Your task to perform on an android device: Empty the shopping cart on walmart.com. Search for "rayovac triple a" on walmart.com, select the first entry, add it to the cart, then select checkout. Image 0: 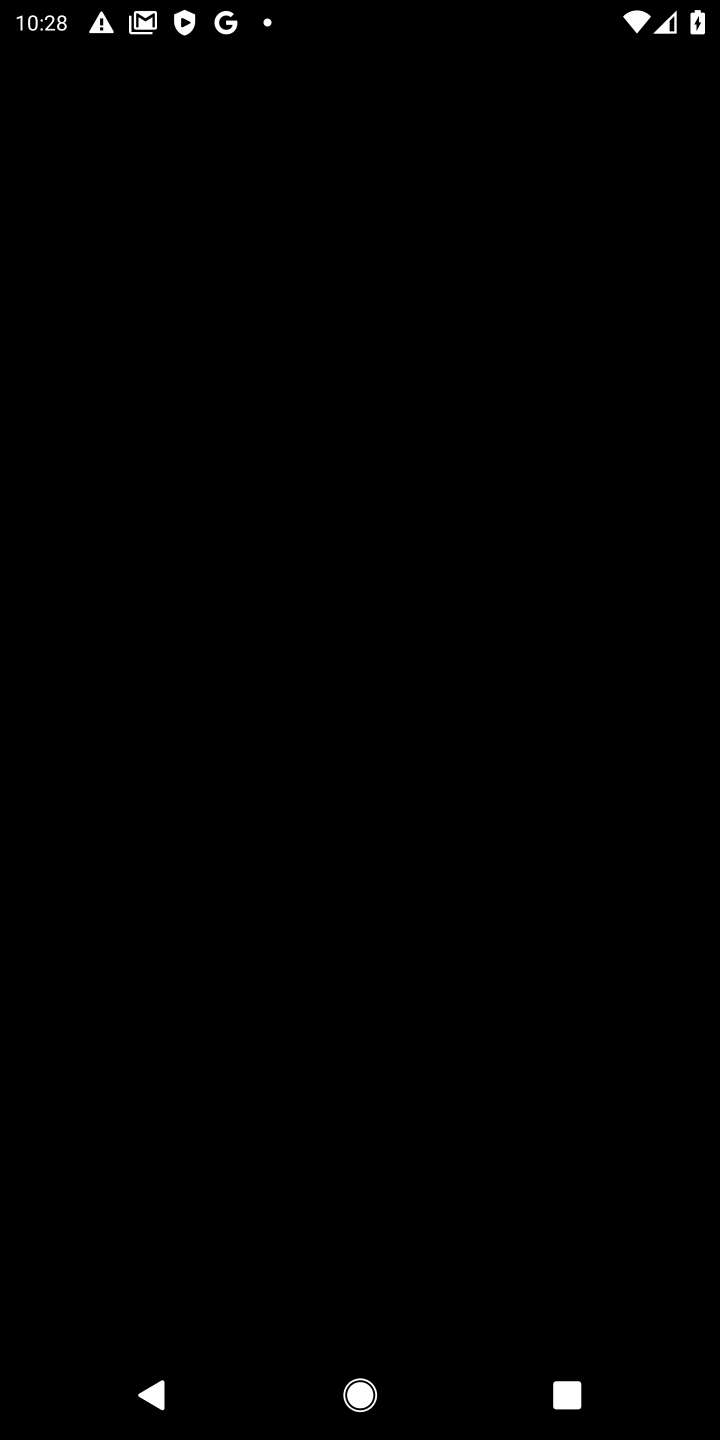
Step 0: press home button
Your task to perform on an android device: Empty the shopping cart on walmart.com. Search for "rayovac triple a" on walmart.com, select the first entry, add it to the cart, then select checkout. Image 1: 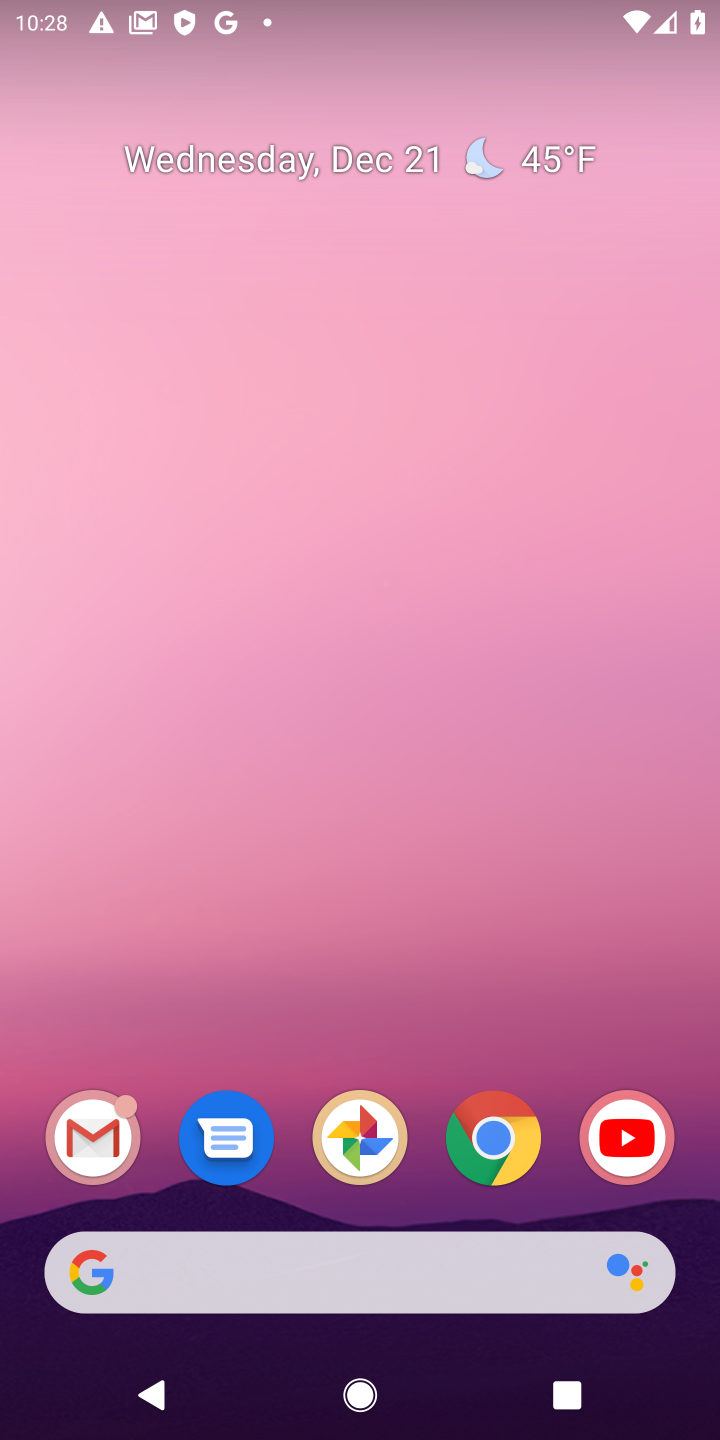
Step 1: click (484, 1153)
Your task to perform on an android device: Empty the shopping cart on walmart.com. Search for "rayovac triple a" on walmart.com, select the first entry, add it to the cart, then select checkout. Image 2: 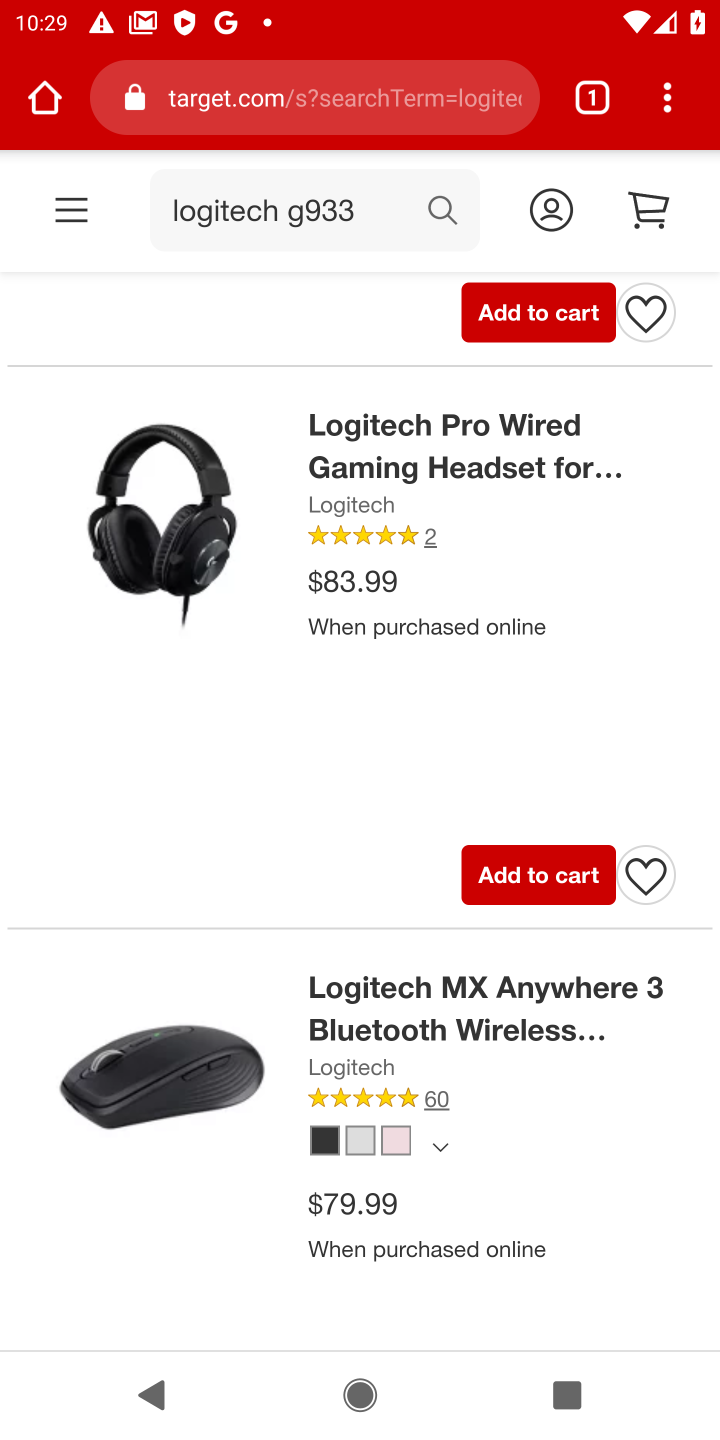
Step 2: click (261, 104)
Your task to perform on an android device: Empty the shopping cart on walmart.com. Search for "rayovac triple a" on walmart.com, select the first entry, add it to the cart, then select checkout. Image 3: 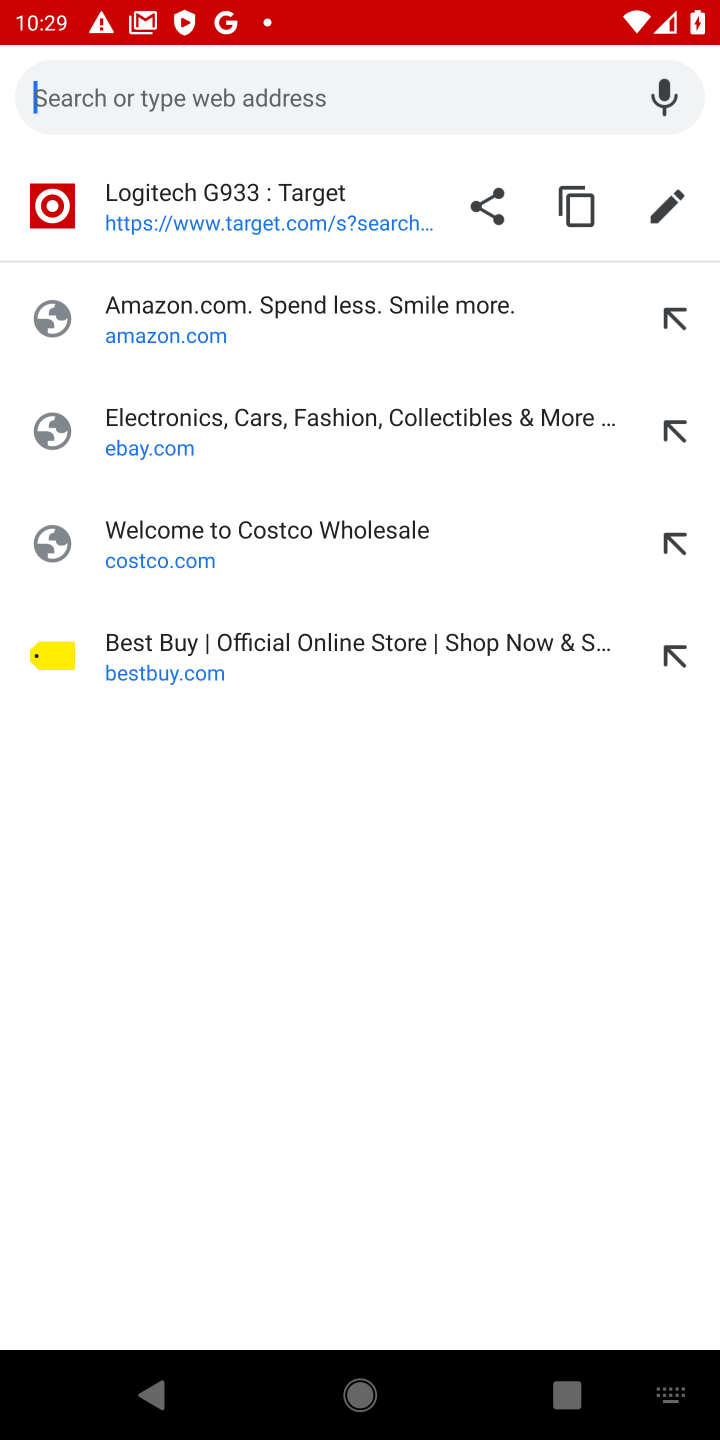
Step 3: click (186, 93)
Your task to perform on an android device: Empty the shopping cart on walmart.com. Search for "rayovac triple a" on walmart.com, select the first entry, add it to the cart, then select checkout. Image 4: 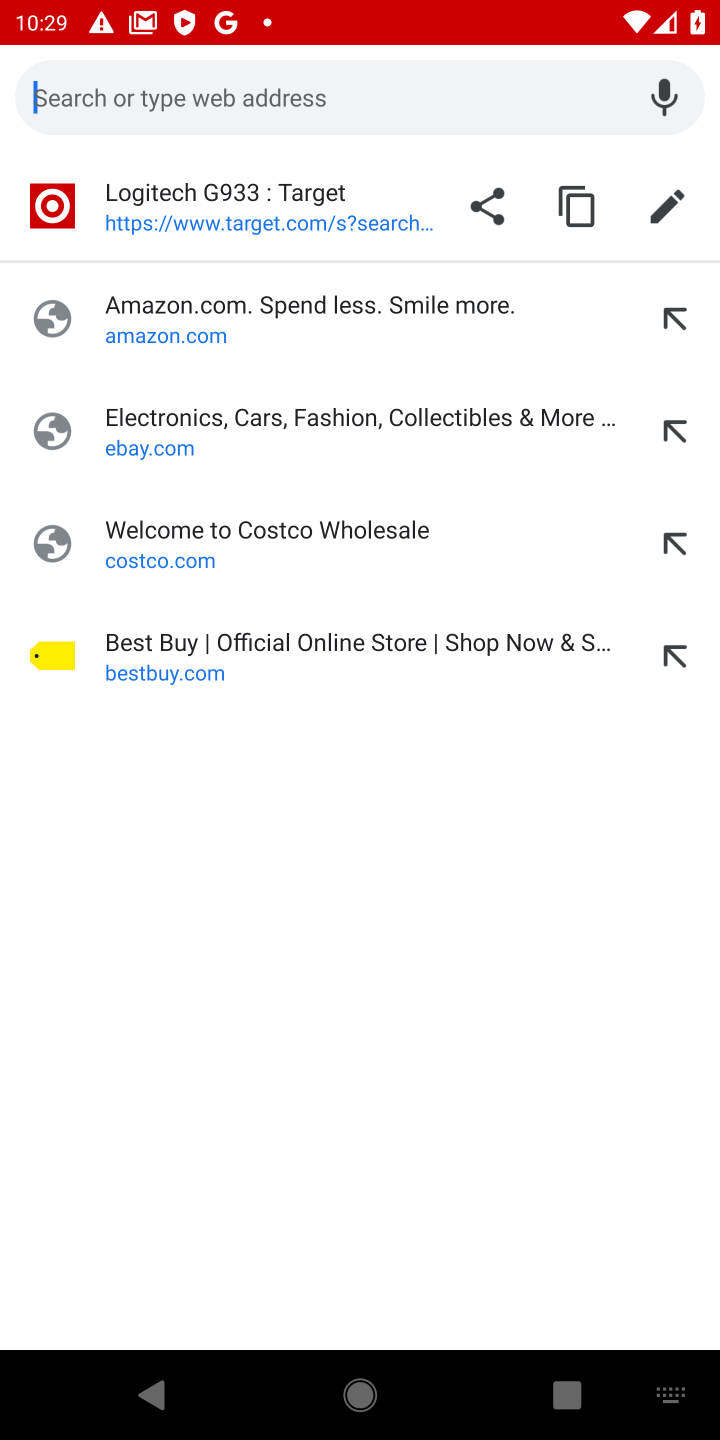
Step 4: type "walmart.com"
Your task to perform on an android device: Empty the shopping cart on walmart.com. Search for "rayovac triple a" on walmart.com, select the first entry, add it to the cart, then select checkout. Image 5: 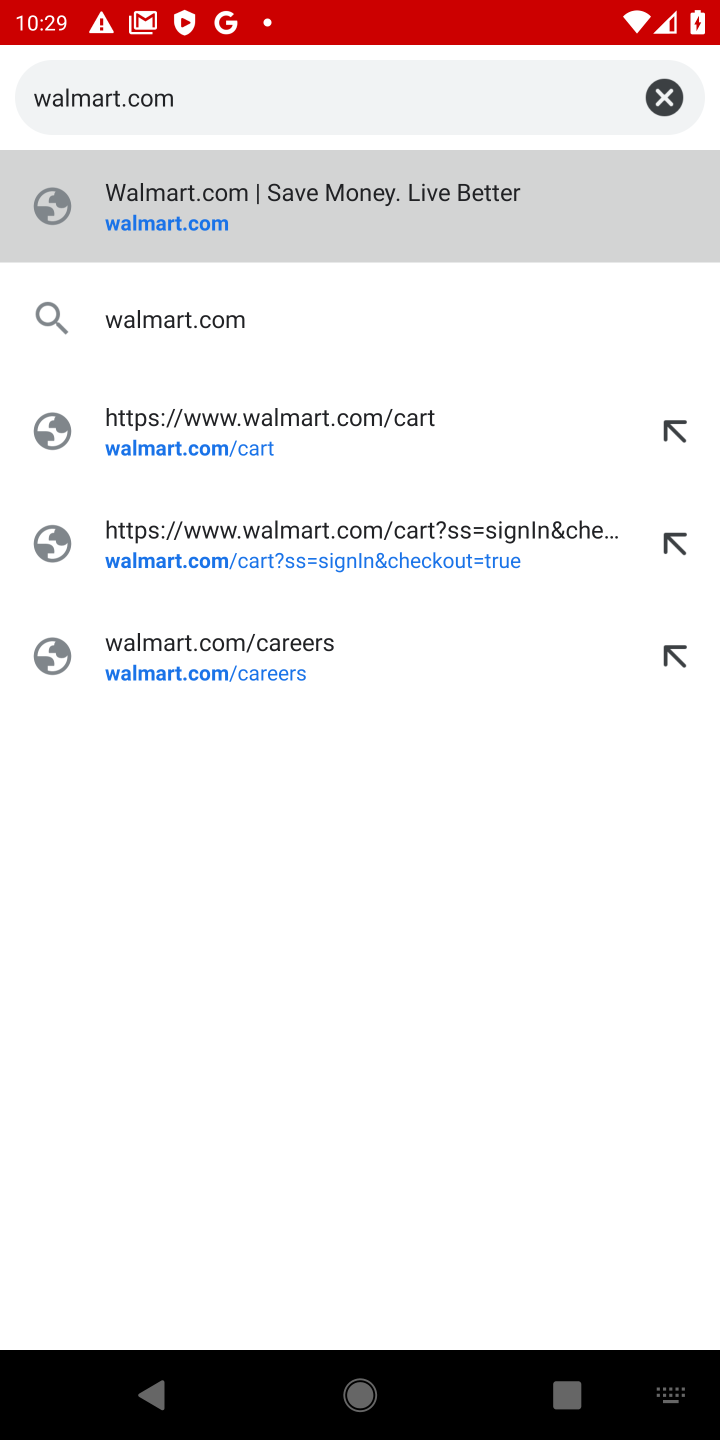
Step 5: click (156, 223)
Your task to perform on an android device: Empty the shopping cart on walmart.com. Search for "rayovac triple a" on walmart.com, select the first entry, add it to the cart, then select checkout. Image 6: 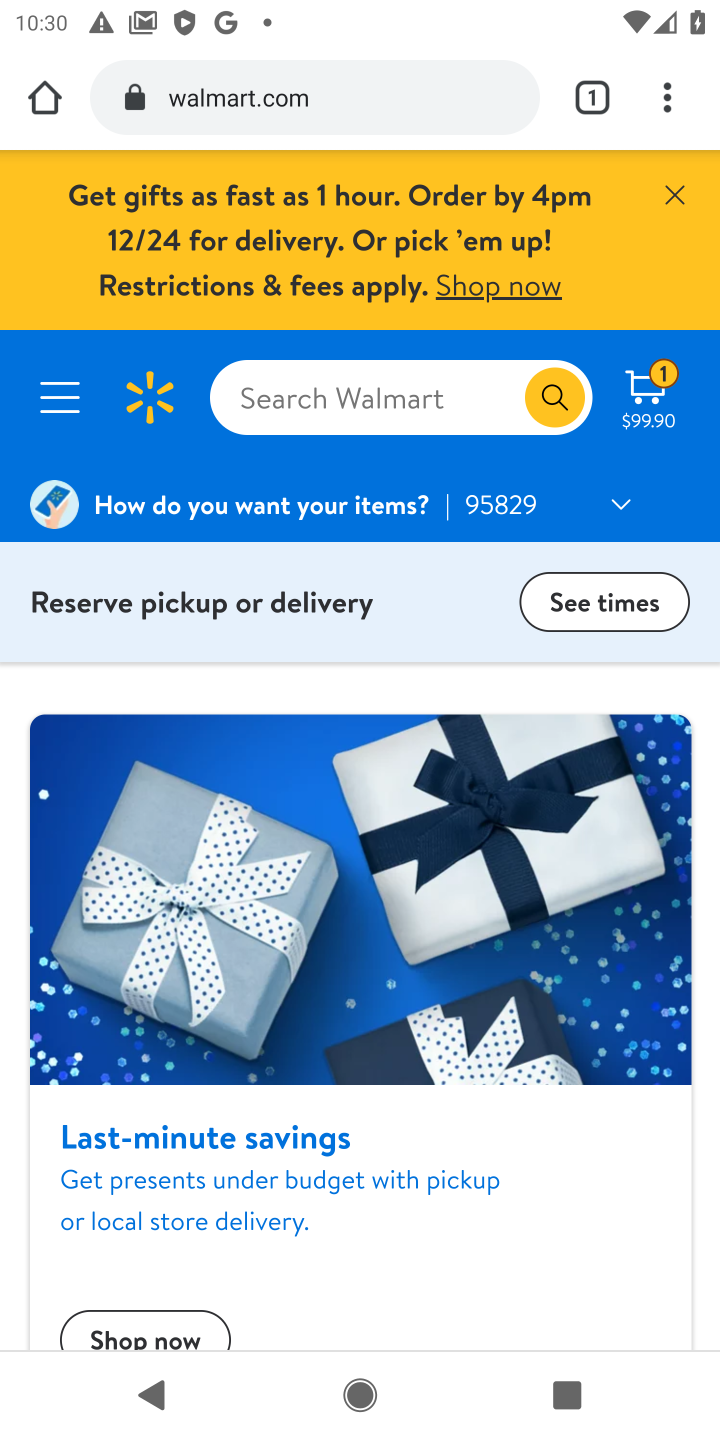
Step 6: click (643, 404)
Your task to perform on an android device: Empty the shopping cart on walmart.com. Search for "rayovac triple a" on walmart.com, select the first entry, add it to the cart, then select checkout. Image 7: 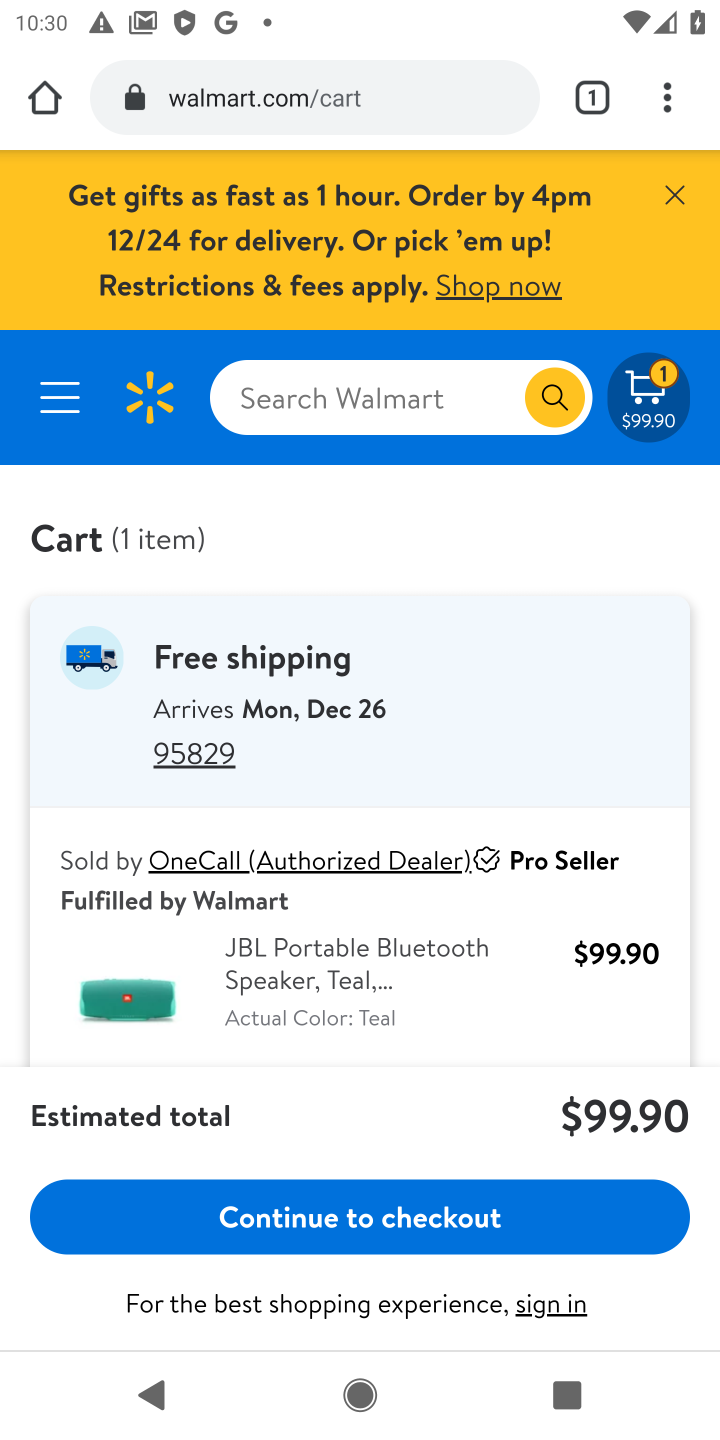
Step 7: drag from (293, 994) to (286, 592)
Your task to perform on an android device: Empty the shopping cart on walmart.com. Search for "rayovac triple a" on walmart.com, select the first entry, add it to the cart, then select checkout. Image 8: 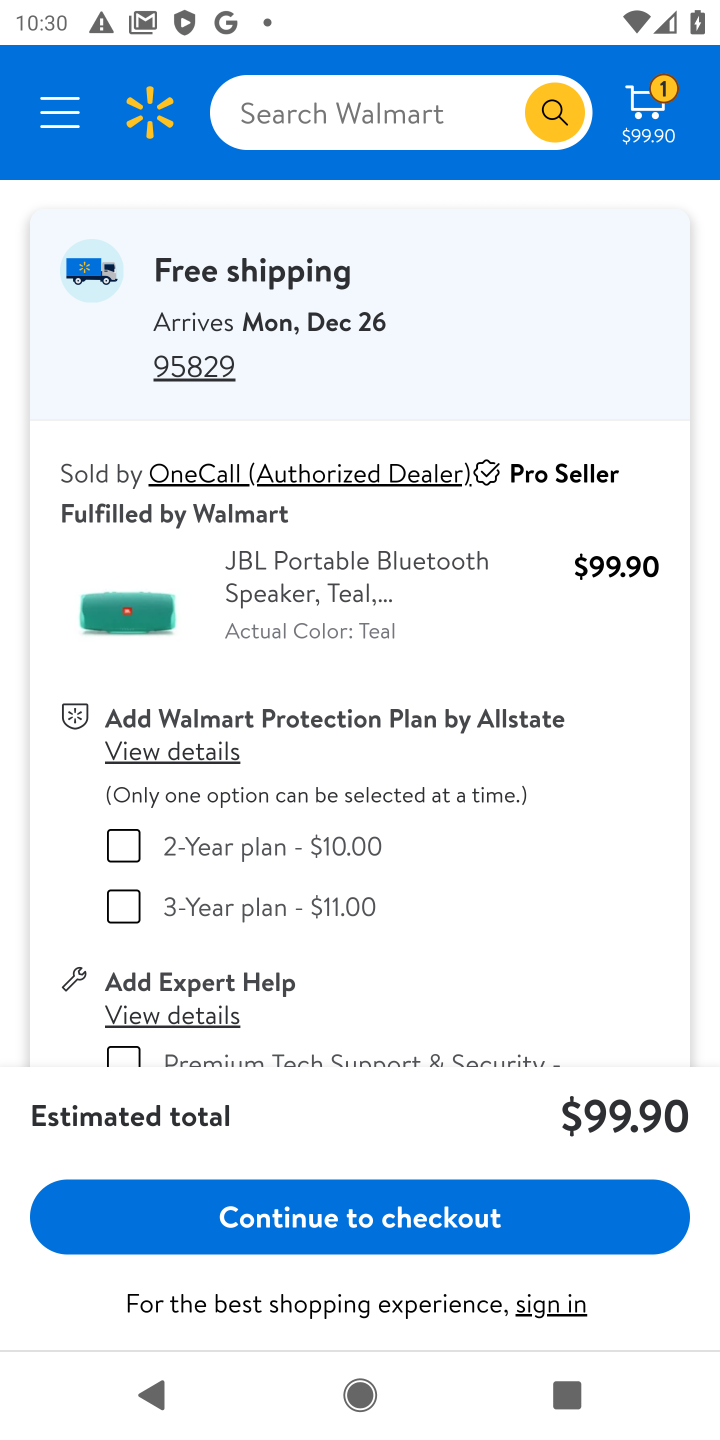
Step 8: drag from (178, 860) to (215, 474)
Your task to perform on an android device: Empty the shopping cart on walmart.com. Search for "rayovac triple a" on walmart.com, select the first entry, add it to the cart, then select checkout. Image 9: 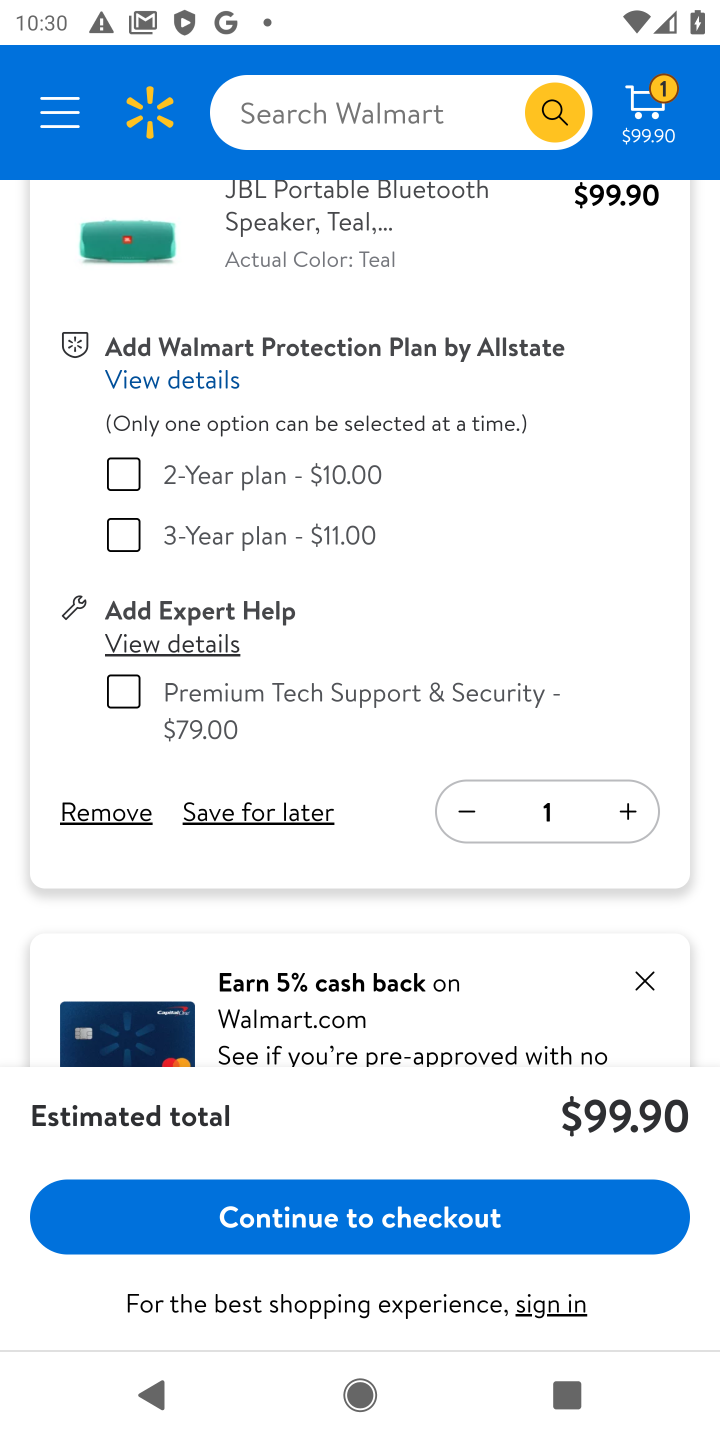
Step 9: click (100, 818)
Your task to perform on an android device: Empty the shopping cart on walmart.com. Search for "rayovac triple a" on walmart.com, select the first entry, add it to the cart, then select checkout. Image 10: 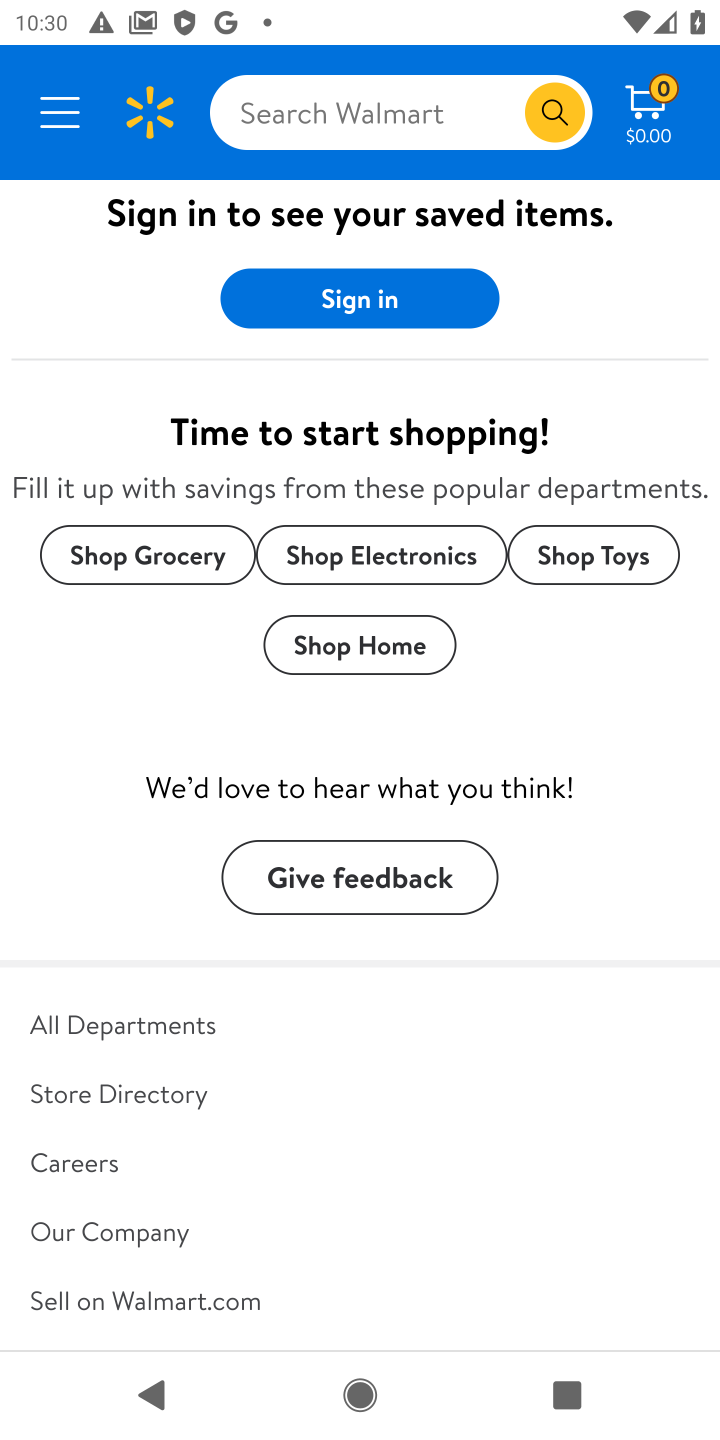
Step 10: click (308, 132)
Your task to perform on an android device: Empty the shopping cart on walmart.com. Search for "rayovac triple a" on walmart.com, select the first entry, add it to the cart, then select checkout. Image 11: 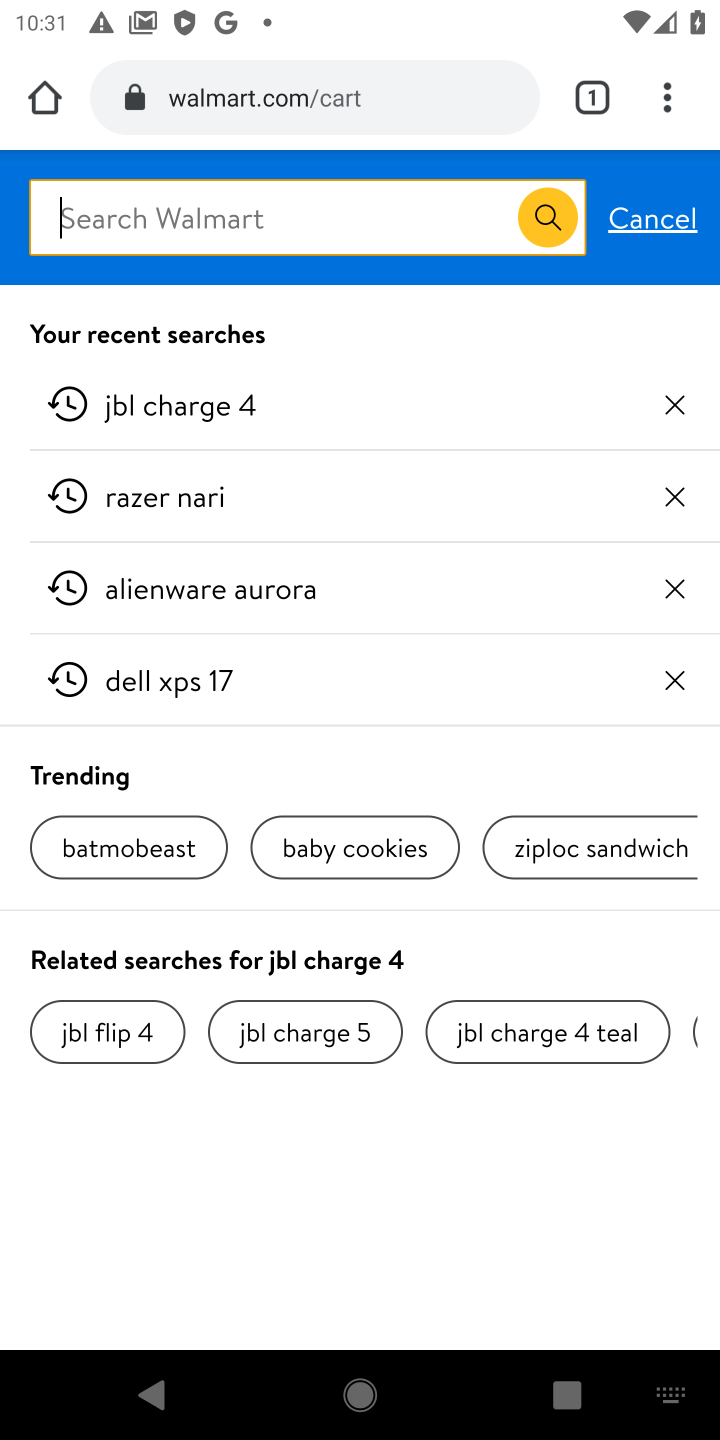
Step 11: type "rayovac triple a"
Your task to perform on an android device: Empty the shopping cart on walmart.com. Search for "rayovac triple a" on walmart.com, select the first entry, add it to the cart, then select checkout. Image 12: 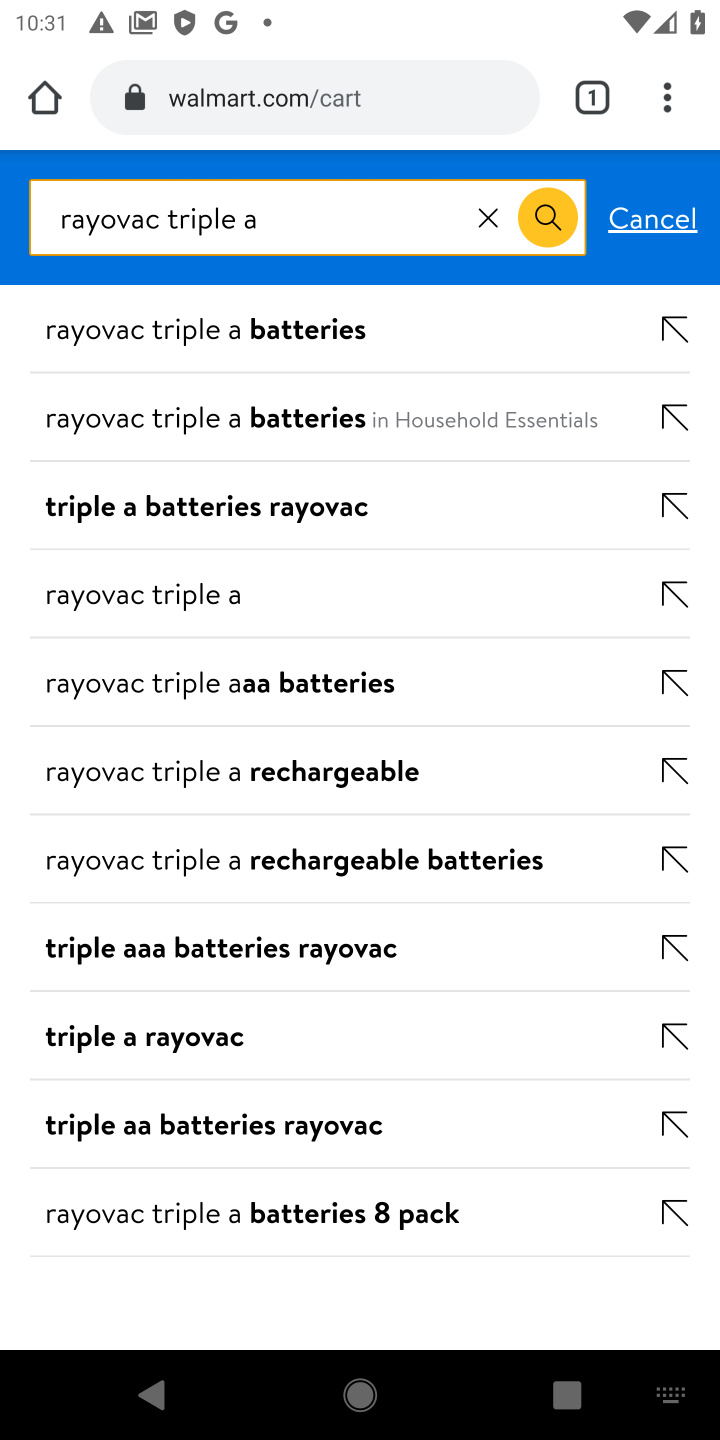
Step 12: click (159, 344)
Your task to perform on an android device: Empty the shopping cart on walmart.com. Search for "rayovac triple a" on walmart.com, select the first entry, add it to the cart, then select checkout. Image 13: 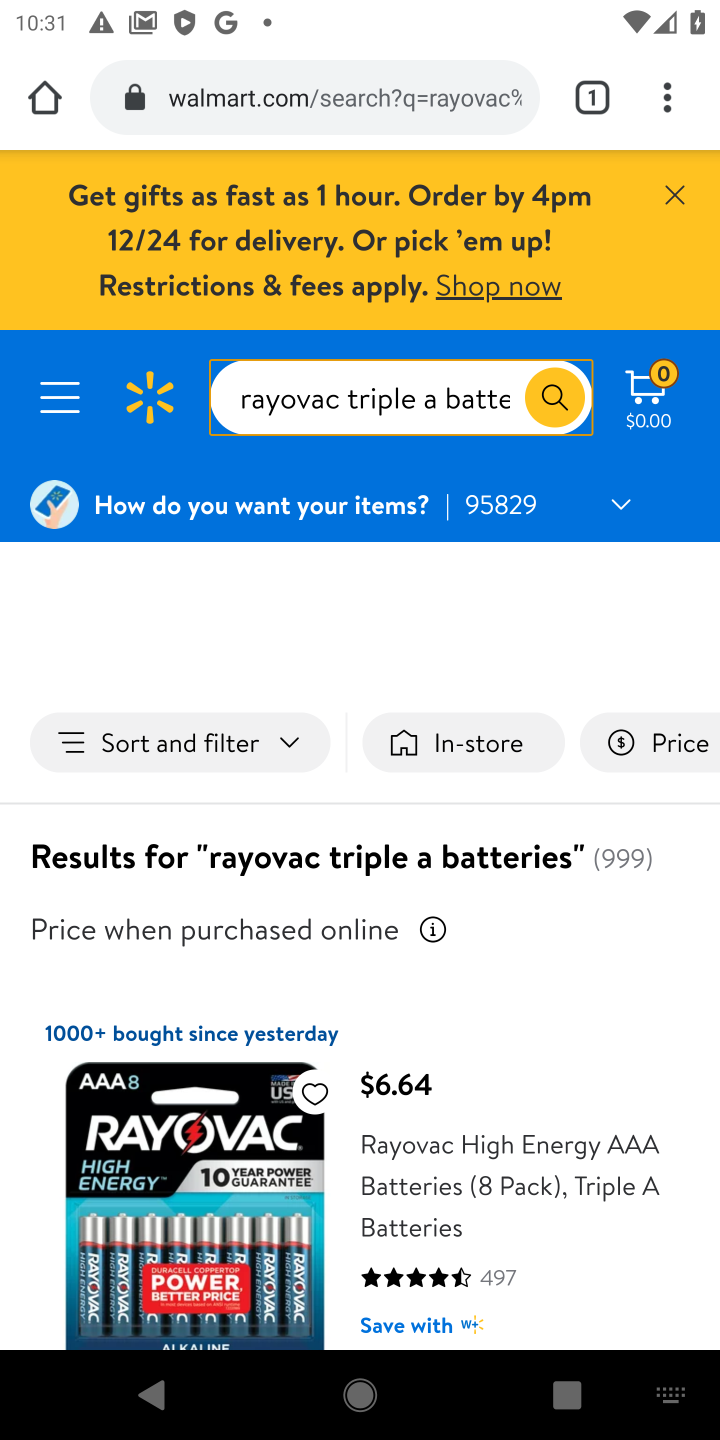
Step 13: drag from (299, 938) to (366, 582)
Your task to perform on an android device: Empty the shopping cart on walmart.com. Search for "rayovac triple a" on walmart.com, select the first entry, add it to the cart, then select checkout. Image 14: 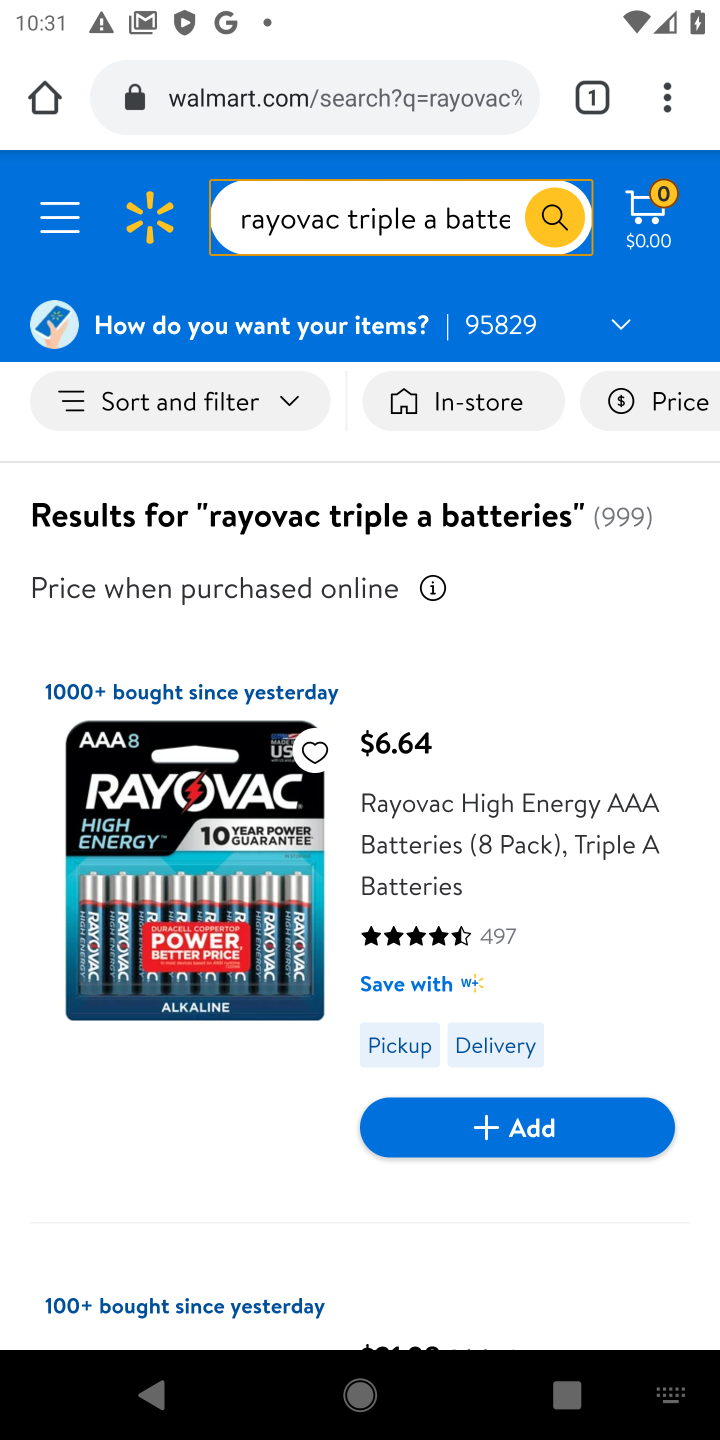
Step 14: click (466, 1123)
Your task to perform on an android device: Empty the shopping cart on walmart.com. Search for "rayovac triple a" on walmart.com, select the first entry, add it to the cart, then select checkout. Image 15: 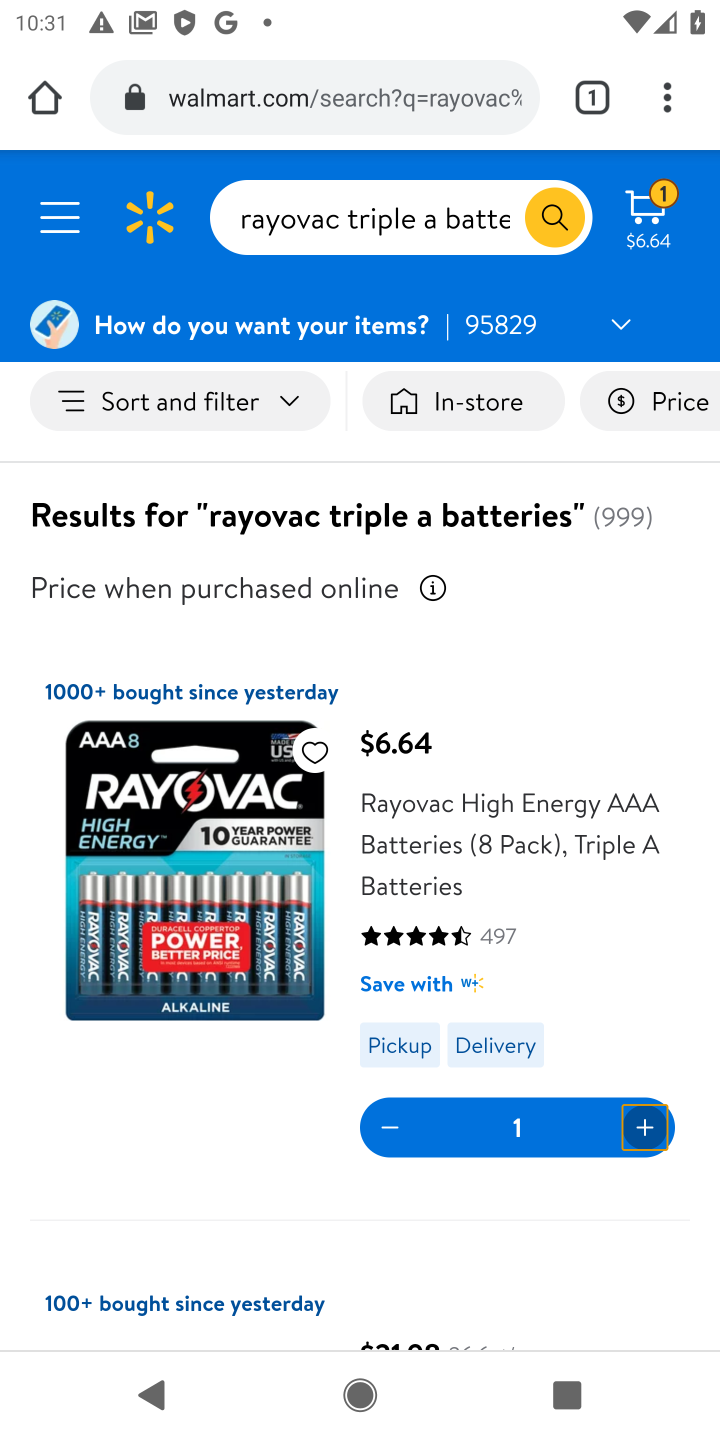
Step 15: click (652, 227)
Your task to perform on an android device: Empty the shopping cart on walmart.com. Search for "rayovac triple a" on walmart.com, select the first entry, add it to the cart, then select checkout. Image 16: 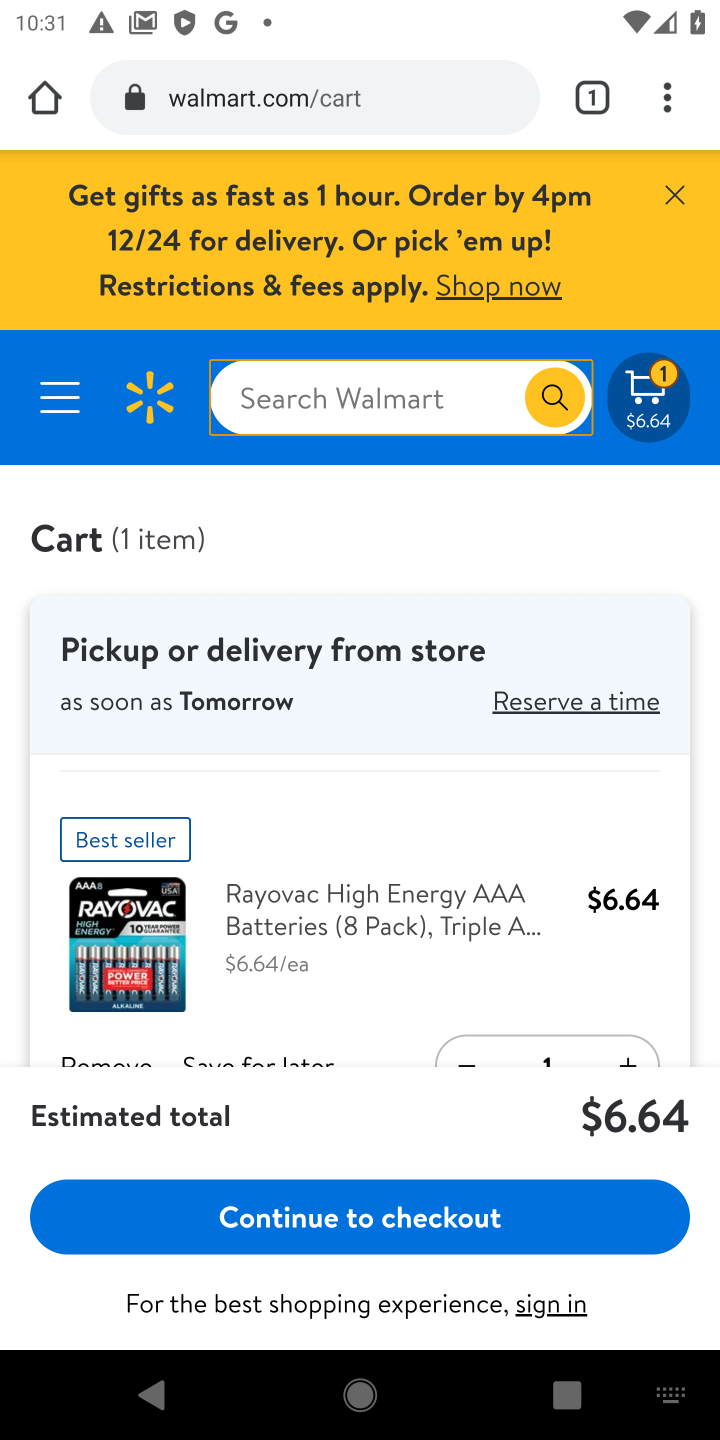
Step 16: click (303, 1216)
Your task to perform on an android device: Empty the shopping cart on walmart.com. Search for "rayovac triple a" on walmart.com, select the first entry, add it to the cart, then select checkout. Image 17: 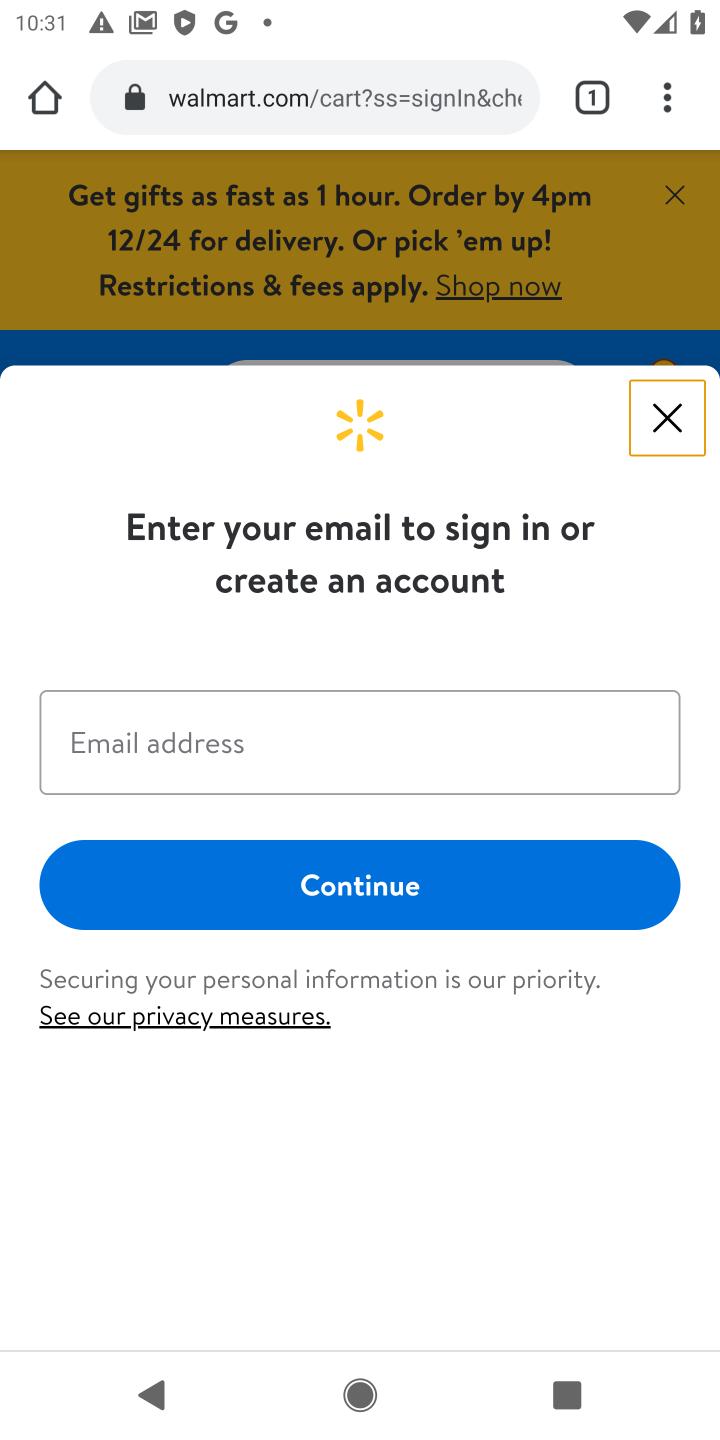
Step 17: task complete